Your task to perform on an android device: delete browsing data in the chrome app Image 0: 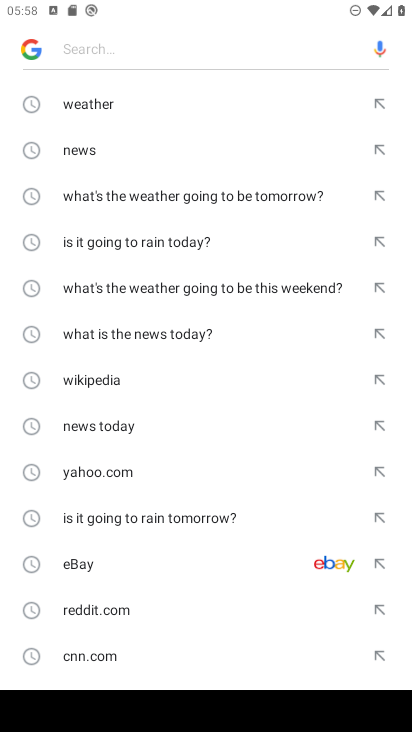
Step 0: press home button
Your task to perform on an android device: delete browsing data in the chrome app Image 1: 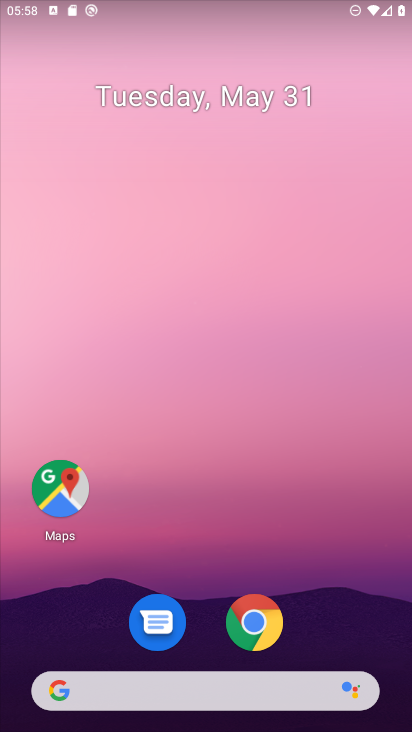
Step 1: drag from (117, 554) to (110, 111)
Your task to perform on an android device: delete browsing data in the chrome app Image 2: 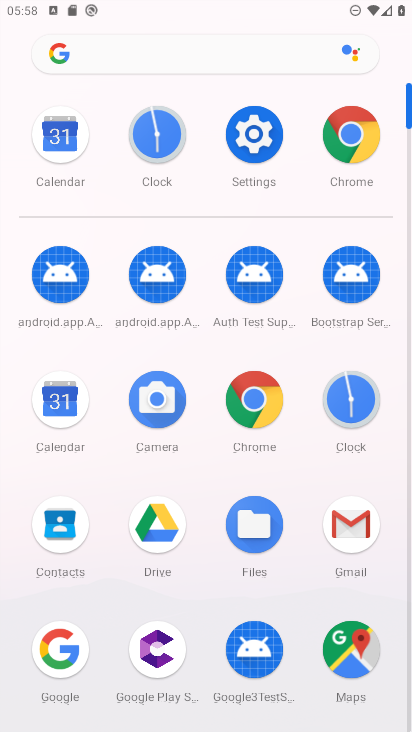
Step 2: drag from (247, 382) to (322, 382)
Your task to perform on an android device: delete browsing data in the chrome app Image 3: 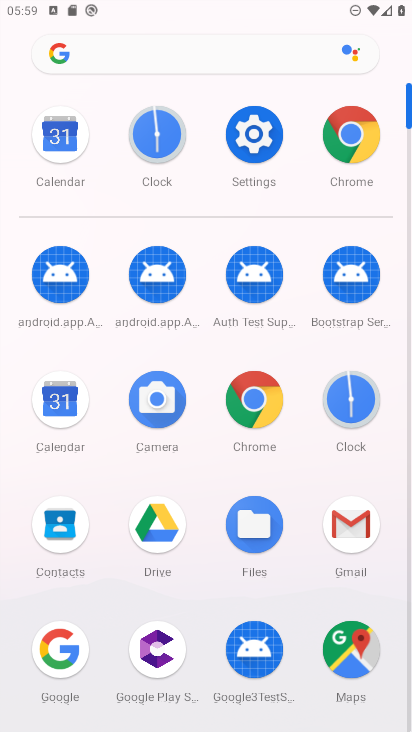
Step 3: click (253, 397)
Your task to perform on an android device: delete browsing data in the chrome app Image 4: 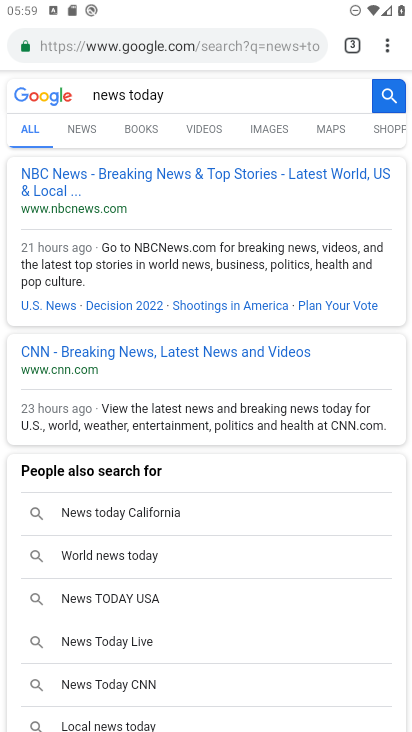
Step 4: click (389, 45)
Your task to perform on an android device: delete browsing data in the chrome app Image 5: 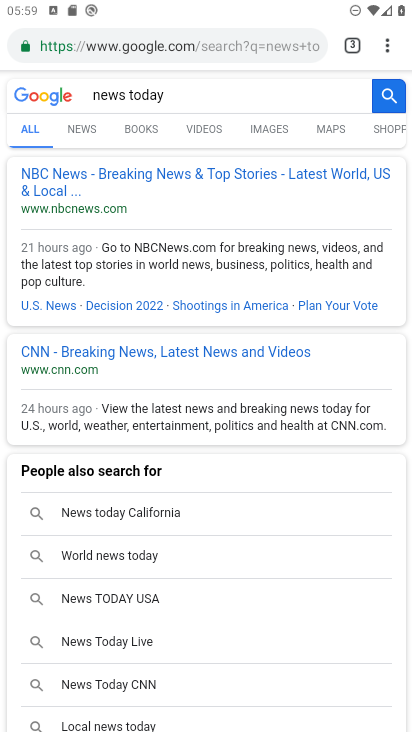
Step 5: drag from (389, 37) to (279, 513)
Your task to perform on an android device: delete browsing data in the chrome app Image 6: 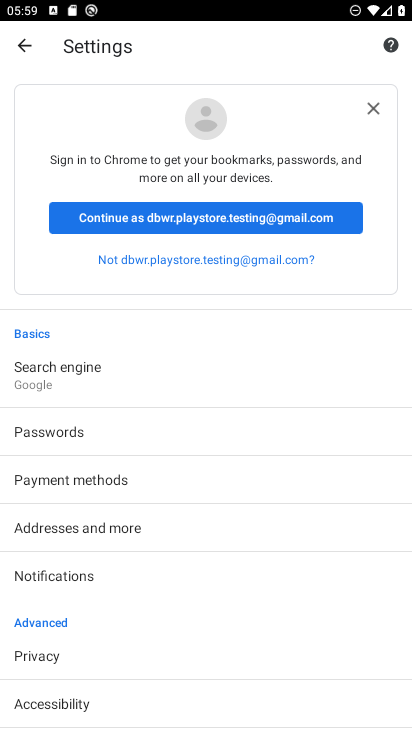
Step 6: drag from (166, 712) to (168, 466)
Your task to perform on an android device: delete browsing data in the chrome app Image 7: 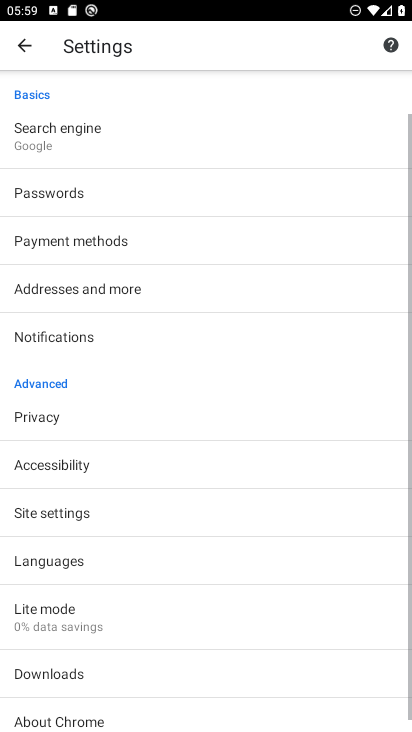
Step 7: drag from (190, 611) to (185, 470)
Your task to perform on an android device: delete browsing data in the chrome app Image 8: 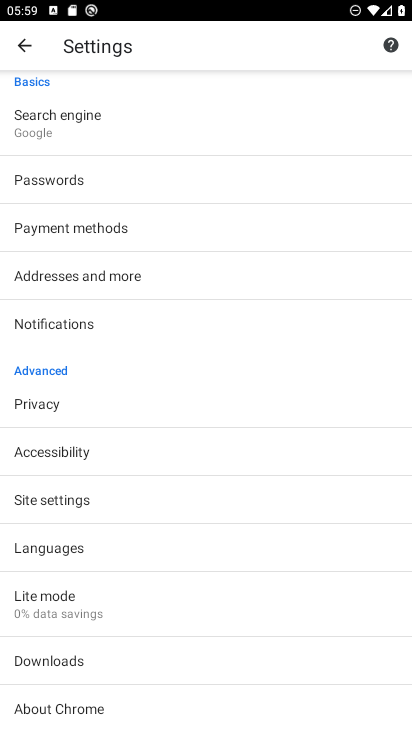
Step 8: click (67, 409)
Your task to perform on an android device: delete browsing data in the chrome app Image 9: 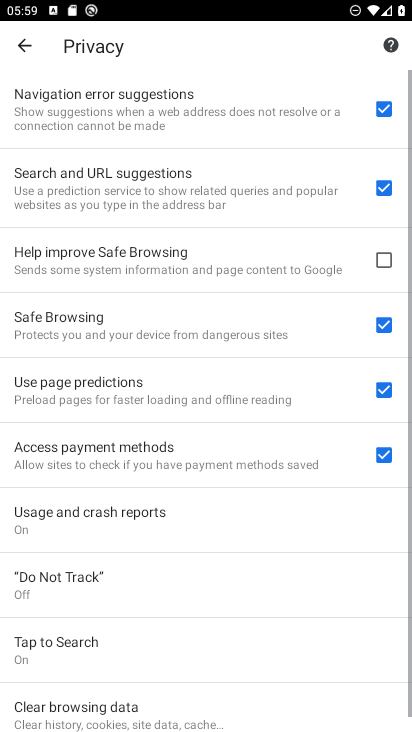
Step 9: drag from (132, 628) to (155, 191)
Your task to perform on an android device: delete browsing data in the chrome app Image 10: 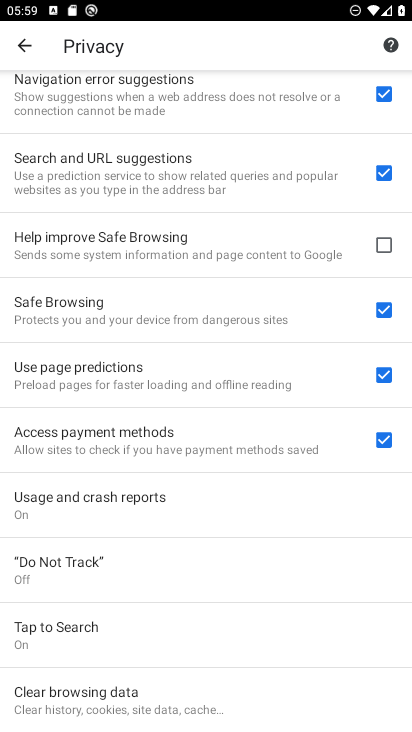
Step 10: click (154, 700)
Your task to perform on an android device: delete browsing data in the chrome app Image 11: 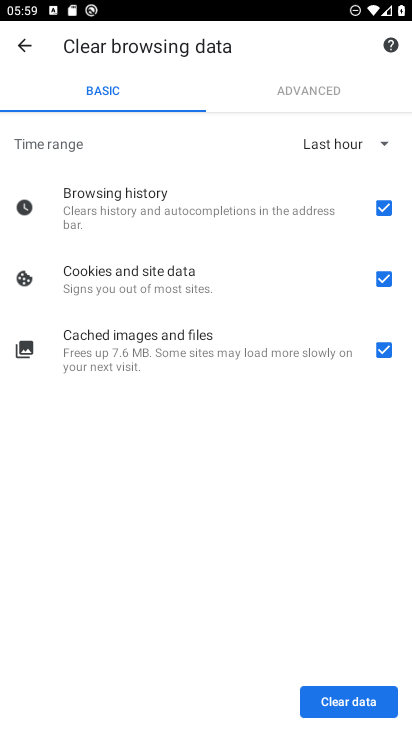
Step 11: click (383, 705)
Your task to perform on an android device: delete browsing data in the chrome app Image 12: 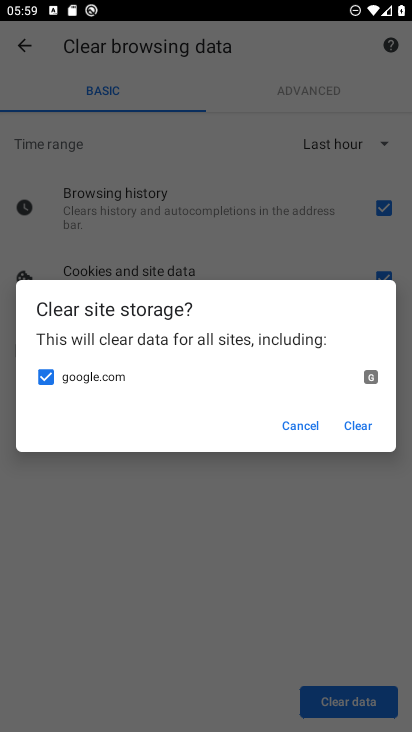
Step 12: click (355, 425)
Your task to perform on an android device: delete browsing data in the chrome app Image 13: 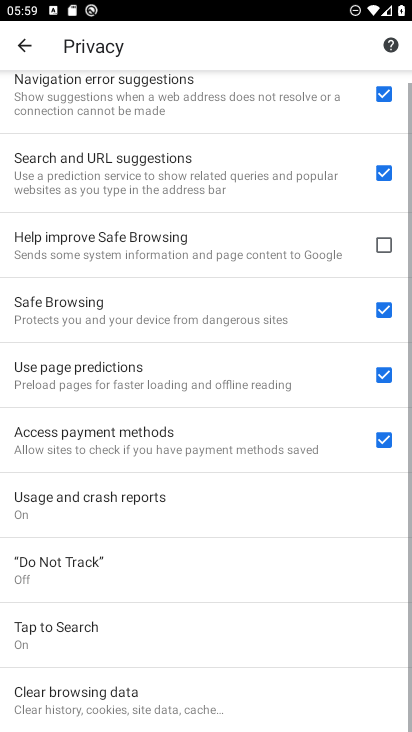
Step 13: task complete